Your task to perform on an android device: Turn off the flashlight Image 0: 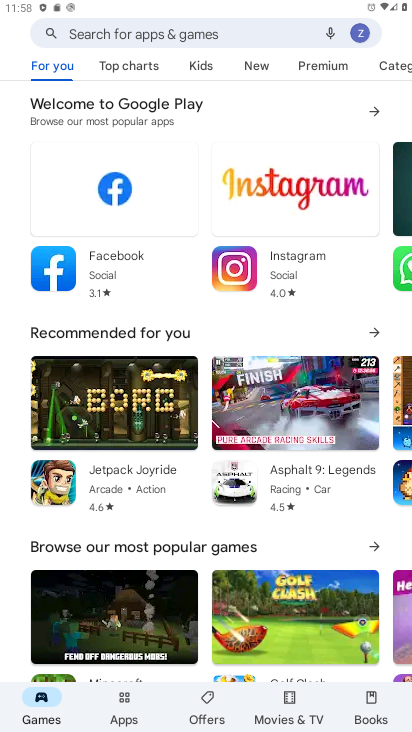
Step 0: press home button
Your task to perform on an android device: Turn off the flashlight Image 1: 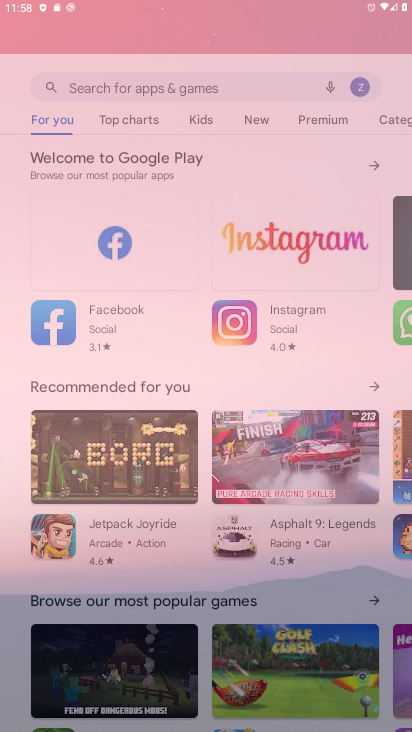
Step 1: drag from (130, 650) to (252, 176)
Your task to perform on an android device: Turn off the flashlight Image 2: 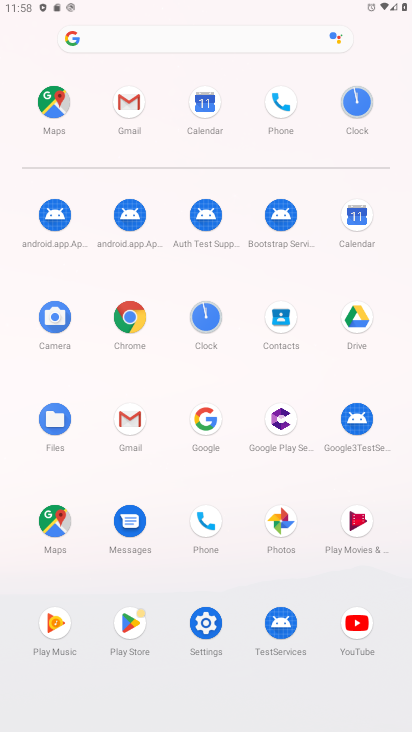
Step 2: click (215, 633)
Your task to perform on an android device: Turn off the flashlight Image 3: 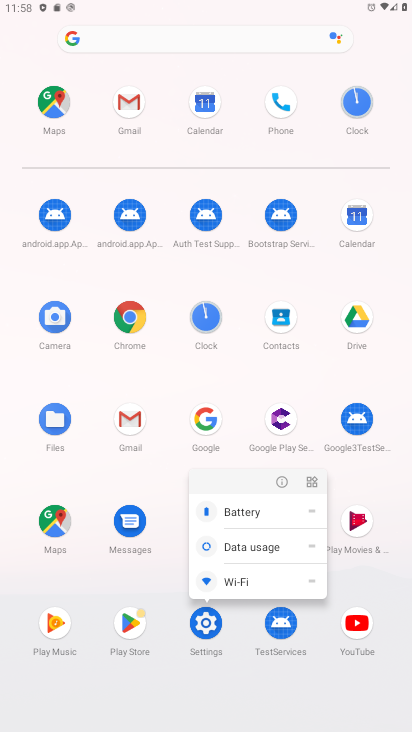
Step 3: click (282, 481)
Your task to perform on an android device: Turn off the flashlight Image 4: 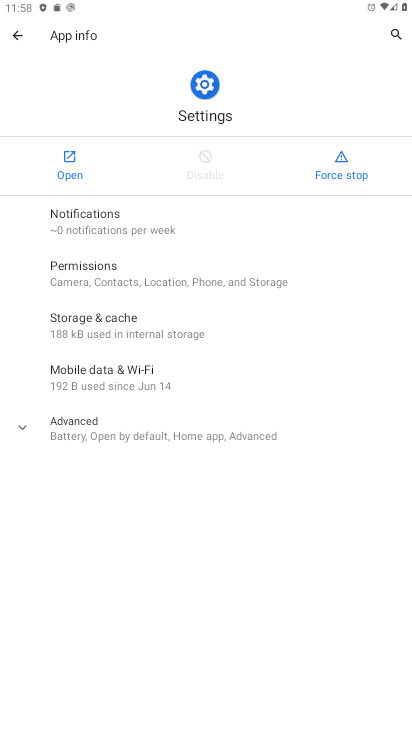
Step 4: click (58, 161)
Your task to perform on an android device: Turn off the flashlight Image 5: 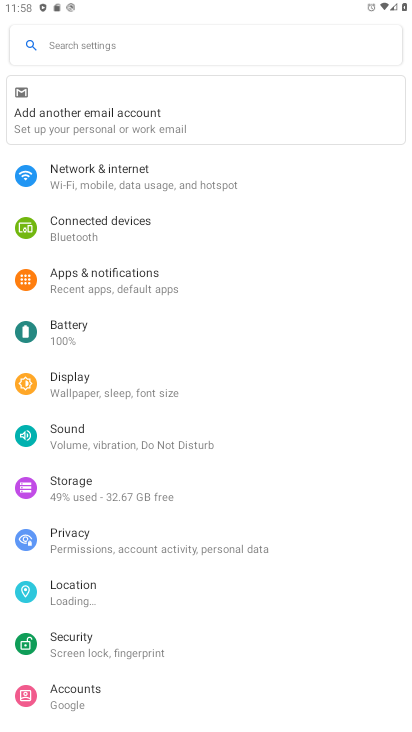
Step 5: click (117, 51)
Your task to perform on an android device: Turn off the flashlight Image 6: 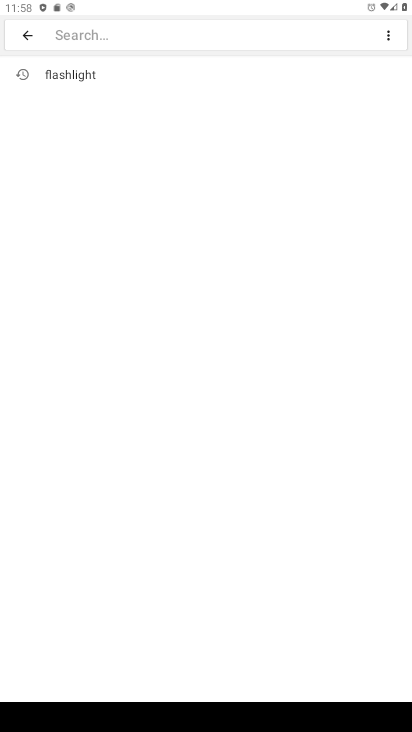
Step 6: click (112, 74)
Your task to perform on an android device: Turn off the flashlight Image 7: 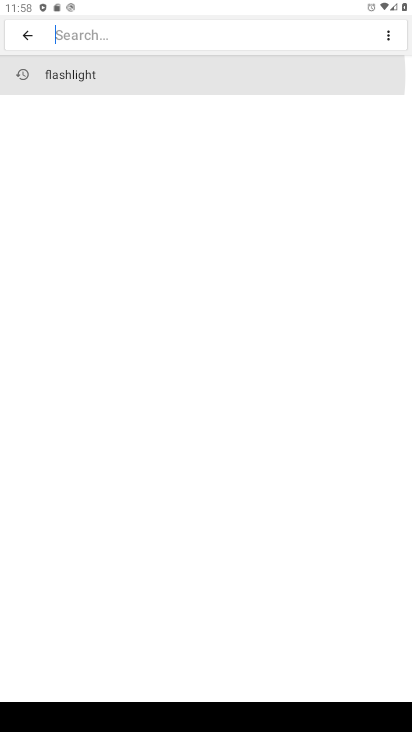
Step 7: click (111, 76)
Your task to perform on an android device: Turn off the flashlight Image 8: 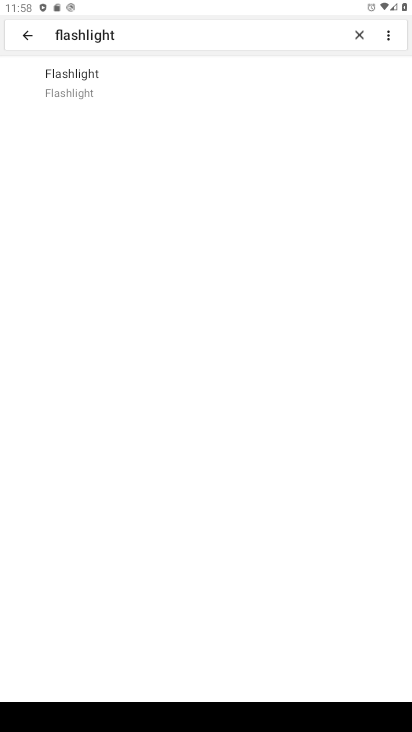
Step 8: click (77, 85)
Your task to perform on an android device: Turn off the flashlight Image 9: 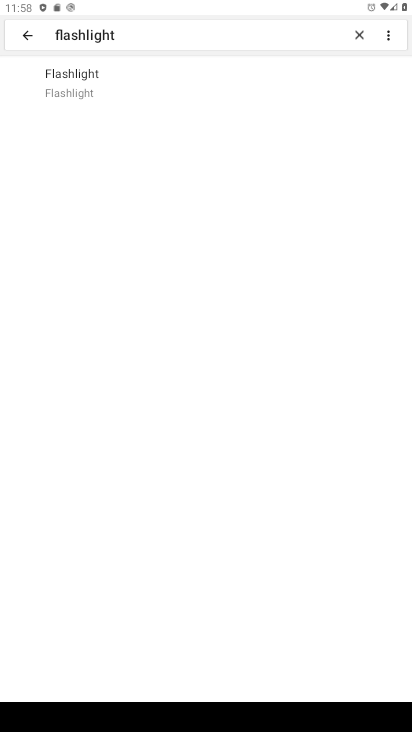
Step 9: task complete